Your task to perform on an android device: open sync settings in chrome Image 0: 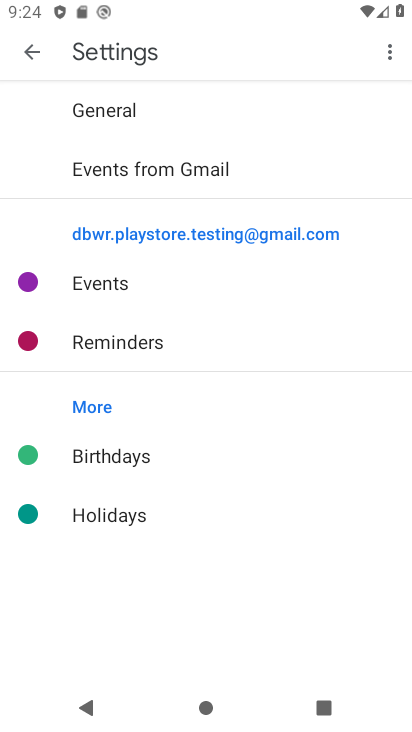
Step 0: press home button
Your task to perform on an android device: open sync settings in chrome Image 1: 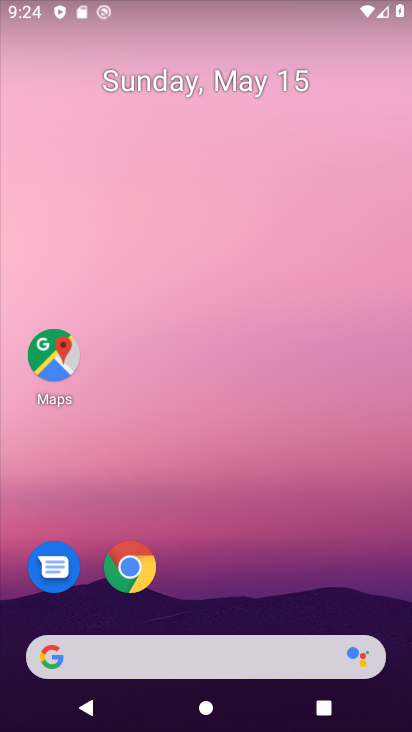
Step 1: click (143, 562)
Your task to perform on an android device: open sync settings in chrome Image 2: 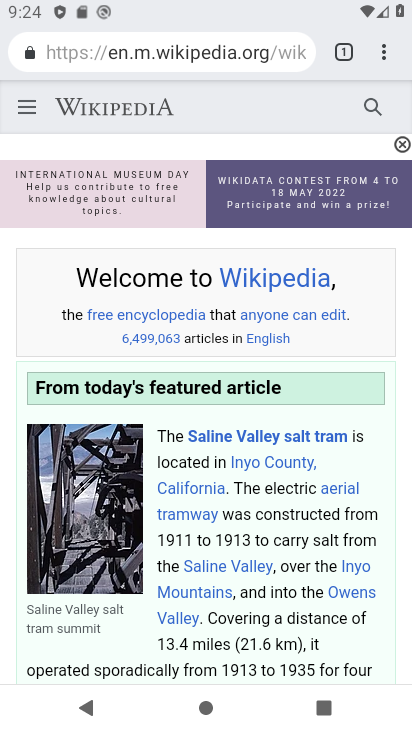
Step 2: click (385, 55)
Your task to perform on an android device: open sync settings in chrome Image 3: 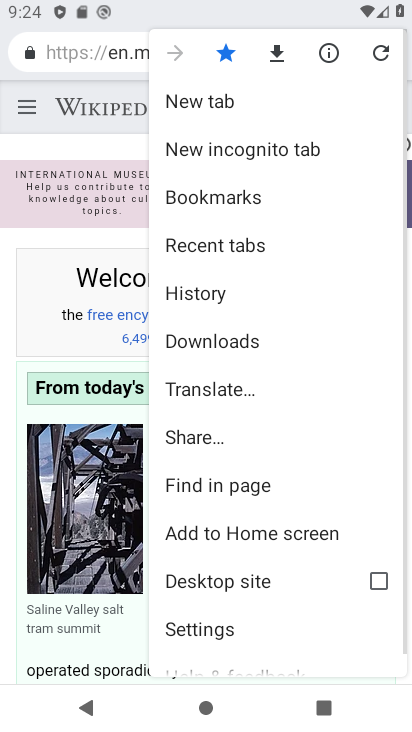
Step 3: click (206, 625)
Your task to perform on an android device: open sync settings in chrome Image 4: 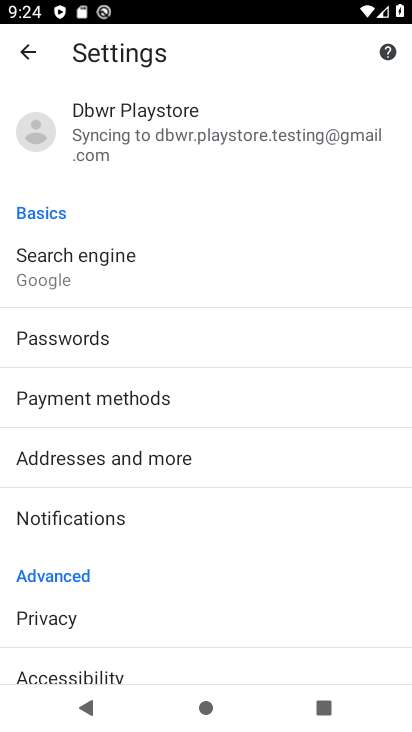
Step 4: click (123, 125)
Your task to perform on an android device: open sync settings in chrome Image 5: 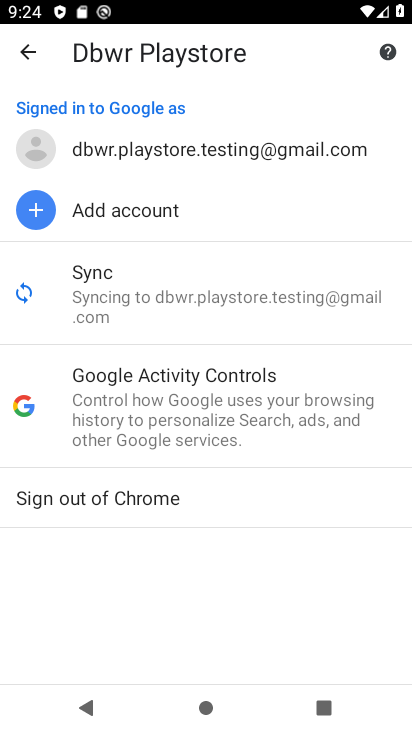
Step 5: click (103, 307)
Your task to perform on an android device: open sync settings in chrome Image 6: 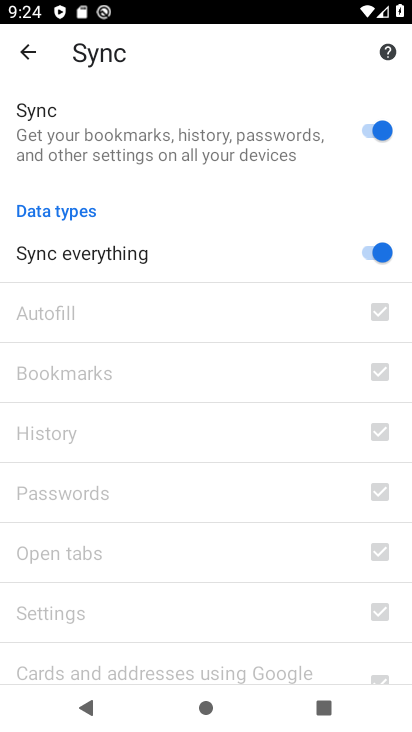
Step 6: task complete